Your task to perform on an android device: toggle show notifications on the lock screen Image 0: 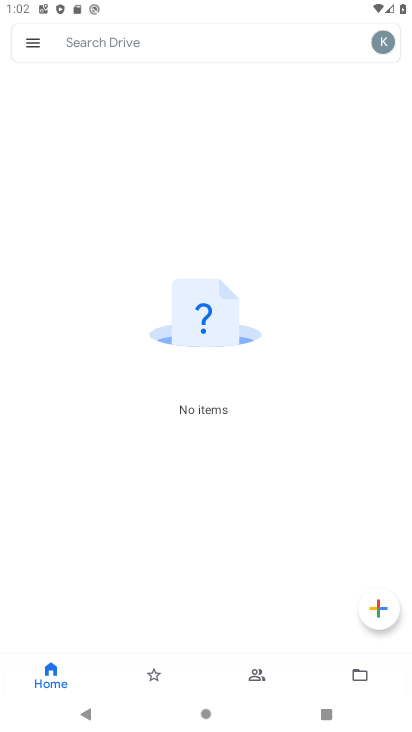
Step 0: press home button
Your task to perform on an android device: toggle show notifications on the lock screen Image 1: 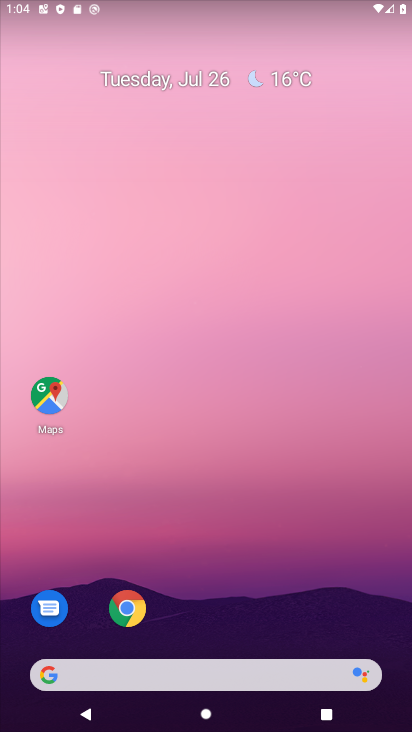
Step 1: task complete